Your task to perform on an android device: read, delete, or share a saved page in the chrome app Image 0: 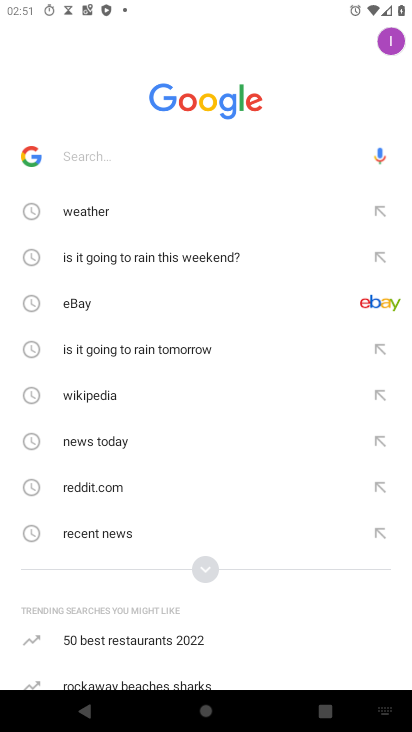
Step 0: press home button
Your task to perform on an android device: read, delete, or share a saved page in the chrome app Image 1: 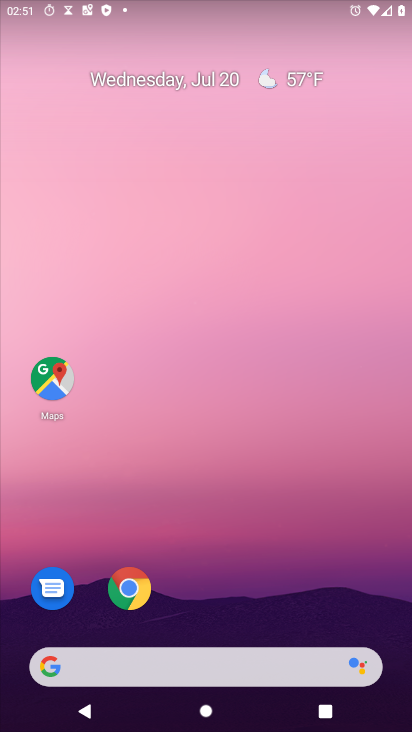
Step 1: drag from (172, 523) to (81, 34)
Your task to perform on an android device: read, delete, or share a saved page in the chrome app Image 2: 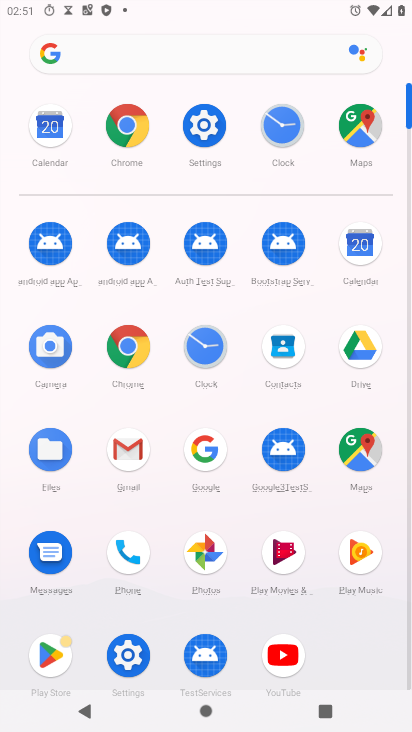
Step 2: click (131, 356)
Your task to perform on an android device: read, delete, or share a saved page in the chrome app Image 3: 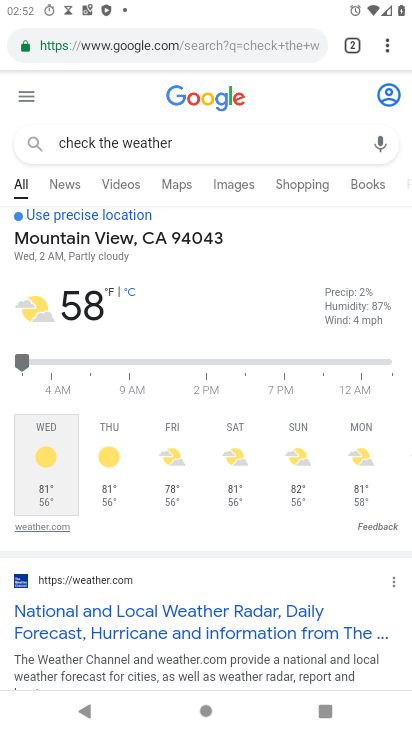
Step 3: task complete